Your task to perform on an android device: Open internet settings Image 0: 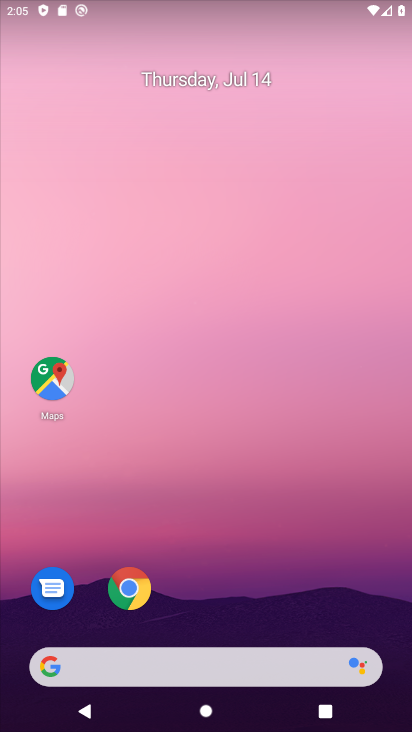
Step 0: drag from (237, 623) to (149, 20)
Your task to perform on an android device: Open internet settings Image 1: 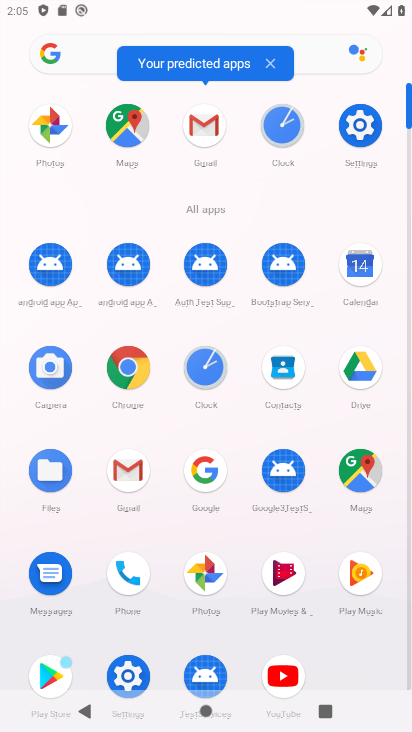
Step 1: click (358, 127)
Your task to perform on an android device: Open internet settings Image 2: 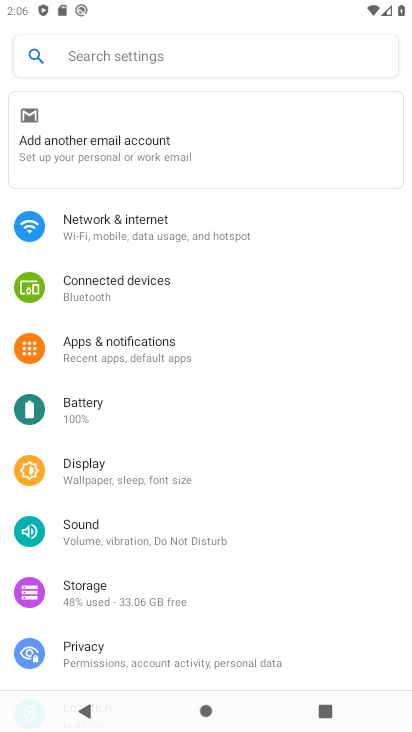
Step 2: click (224, 230)
Your task to perform on an android device: Open internet settings Image 3: 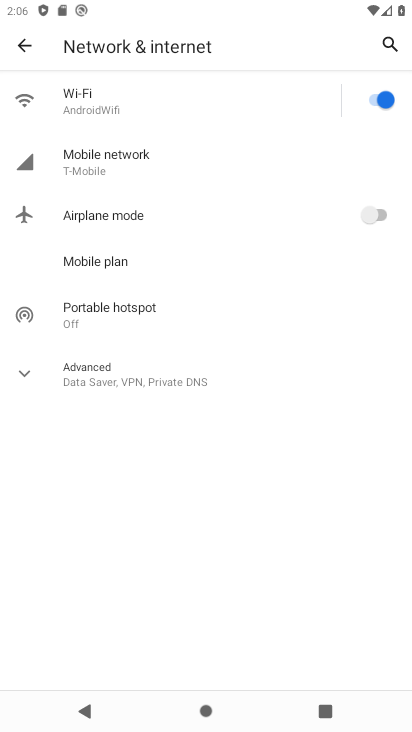
Step 3: task complete